Your task to perform on an android device: Go to settings Image 0: 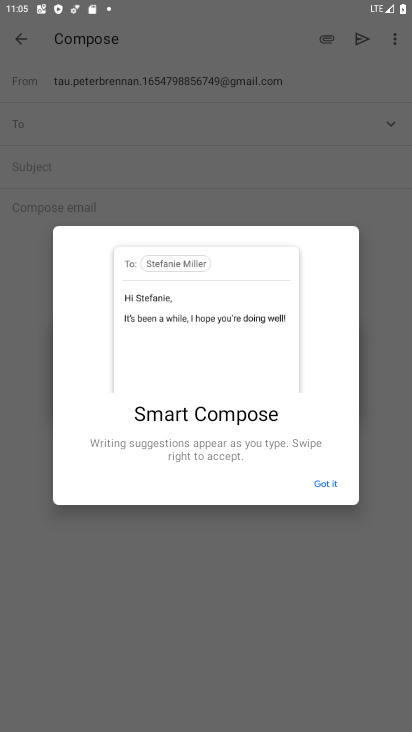
Step 0: press home button
Your task to perform on an android device: Go to settings Image 1: 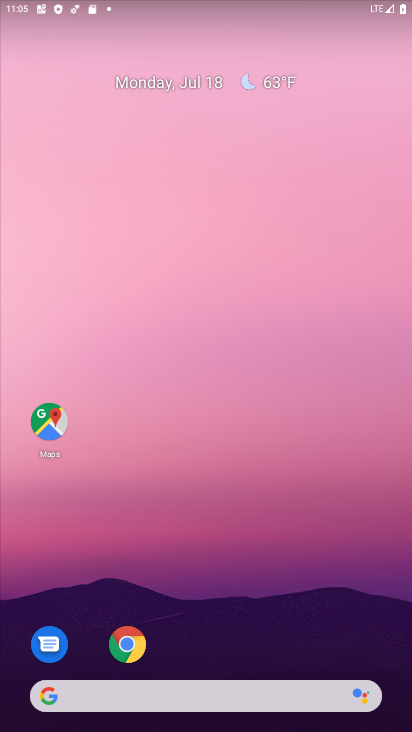
Step 1: drag from (276, 599) to (257, 198)
Your task to perform on an android device: Go to settings Image 2: 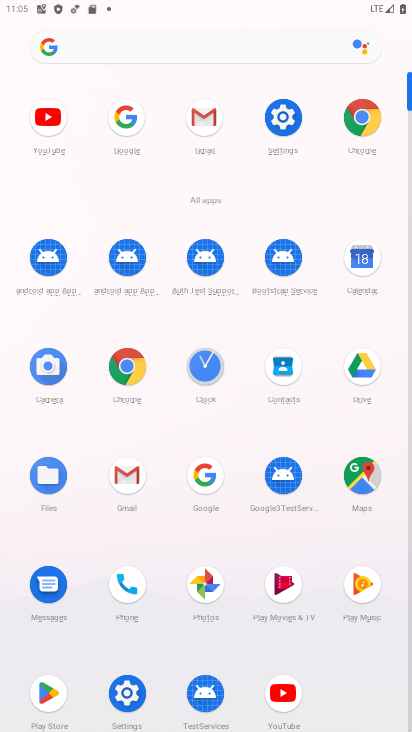
Step 2: click (284, 116)
Your task to perform on an android device: Go to settings Image 3: 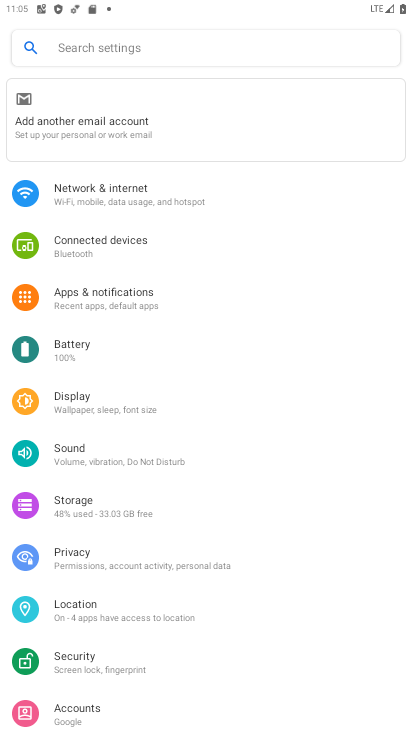
Step 3: task complete